Your task to perform on an android device: open app "Etsy: Buy & Sell Unique Items" (install if not already installed) and enter user name: "camp@inbox.com" and password: "unrelated" Image 0: 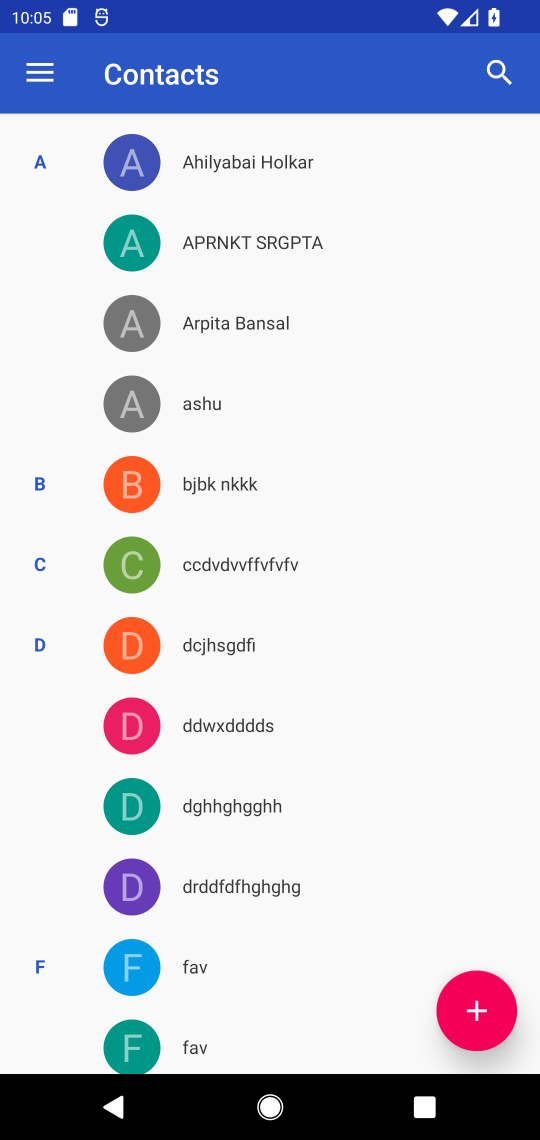
Step 0: press home button
Your task to perform on an android device: open app "Etsy: Buy & Sell Unique Items" (install if not already installed) and enter user name: "camp@inbox.com" and password: "unrelated" Image 1: 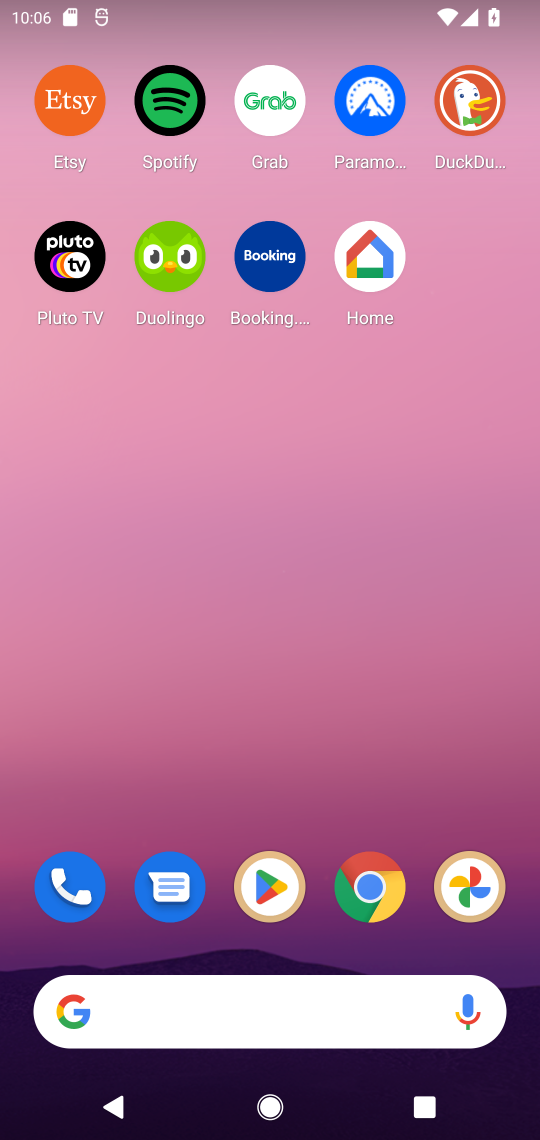
Step 1: click (282, 919)
Your task to perform on an android device: open app "Etsy: Buy & Sell Unique Items" (install if not already installed) and enter user name: "camp@inbox.com" and password: "unrelated" Image 2: 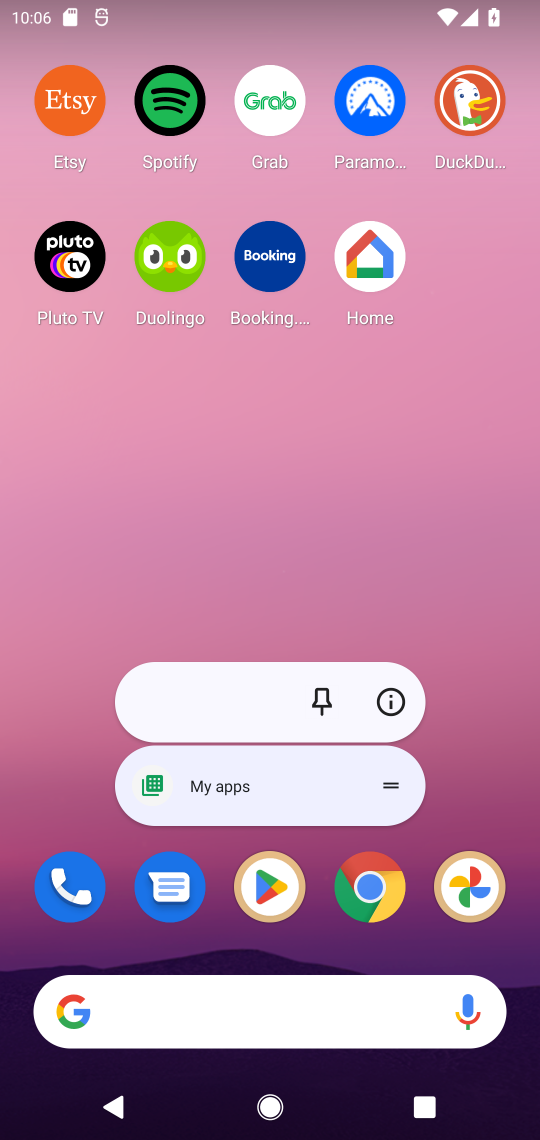
Step 2: click (281, 876)
Your task to perform on an android device: open app "Etsy: Buy & Sell Unique Items" (install if not already installed) and enter user name: "camp@inbox.com" and password: "unrelated" Image 3: 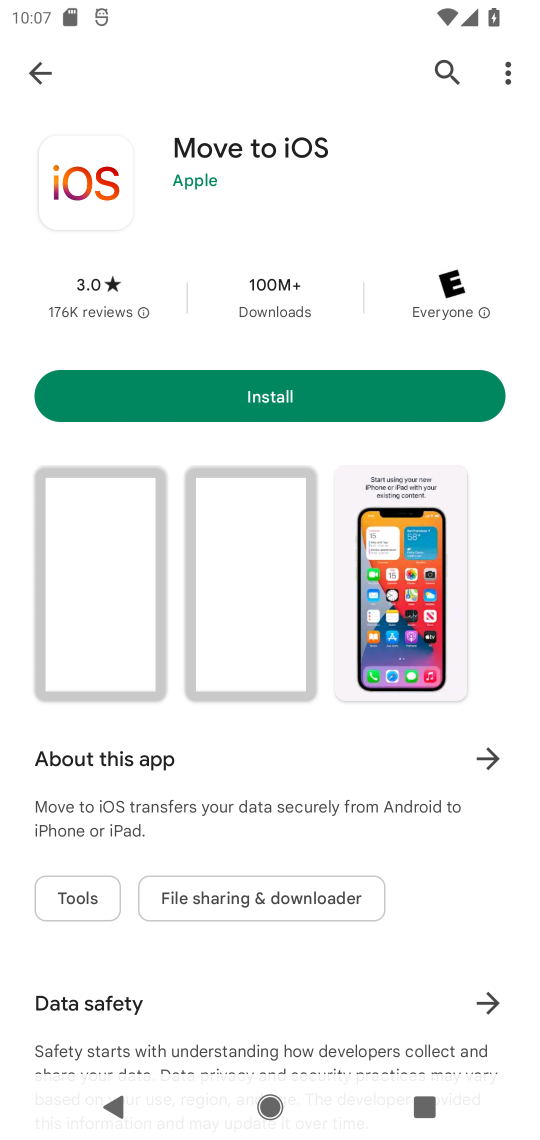
Step 3: click (441, 79)
Your task to perform on an android device: open app "Etsy: Buy & Sell Unique Items" (install if not already installed) and enter user name: "camp@inbox.com" and password: "unrelated" Image 4: 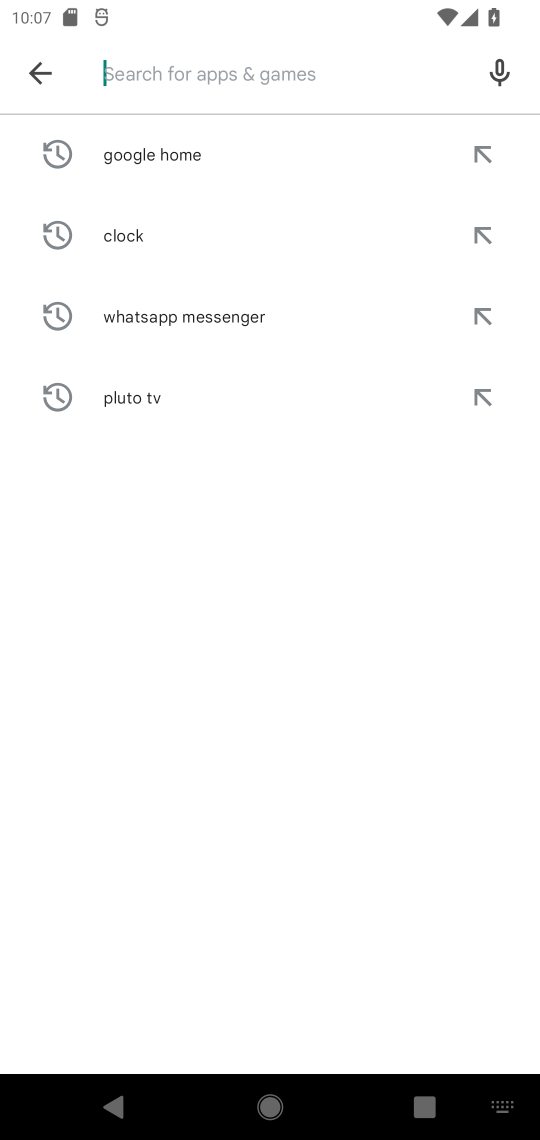
Step 4: type "Etsy: Buy & Sell Unique Items"
Your task to perform on an android device: open app "Etsy: Buy & Sell Unique Items" (install if not already installed) and enter user name: "camp@inbox.com" and password: "unrelated" Image 5: 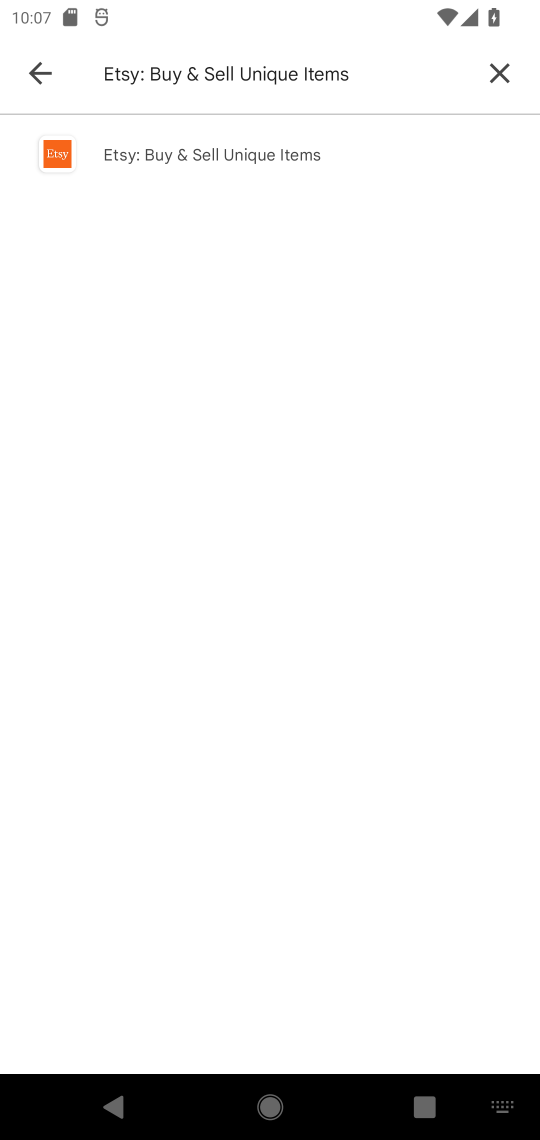
Step 5: click (317, 165)
Your task to perform on an android device: open app "Etsy: Buy & Sell Unique Items" (install if not already installed) and enter user name: "camp@inbox.com" and password: "unrelated" Image 6: 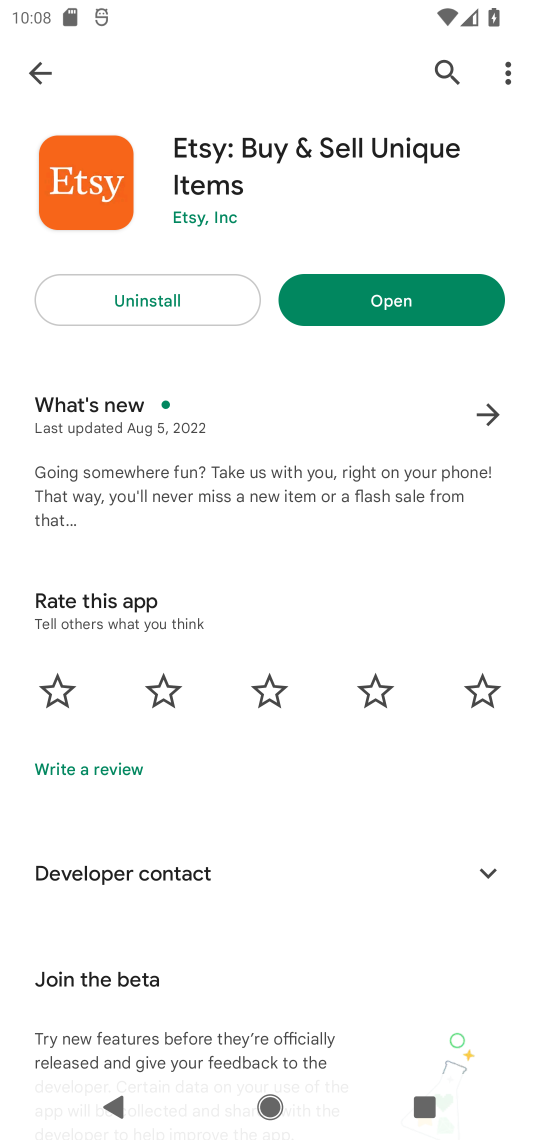
Step 6: click (348, 305)
Your task to perform on an android device: open app "Etsy: Buy & Sell Unique Items" (install if not already installed) and enter user name: "camp@inbox.com" and password: "unrelated" Image 7: 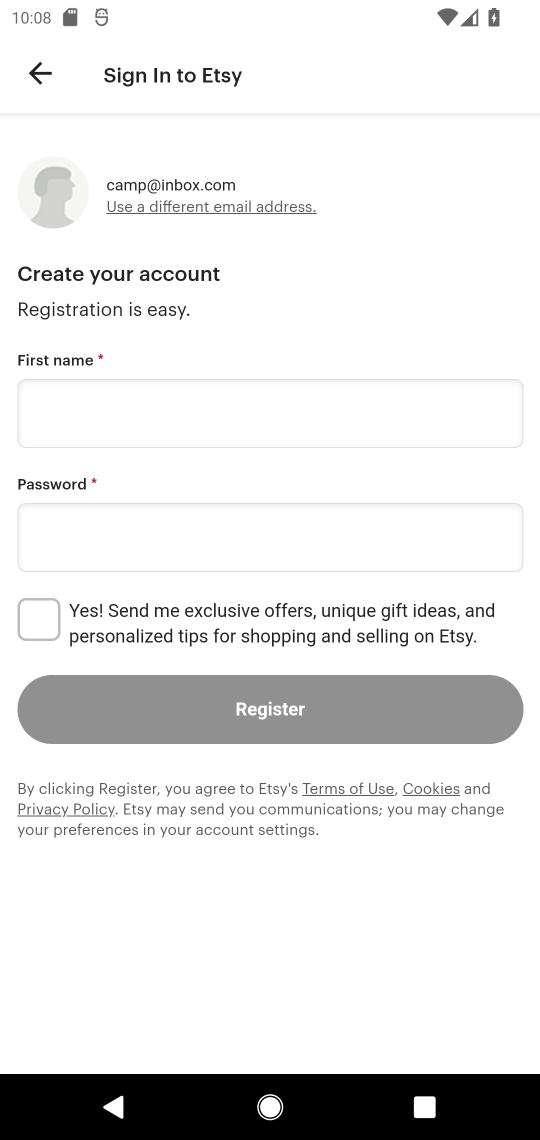
Step 7: task complete